Your task to perform on an android device: Open Android settings Image 0: 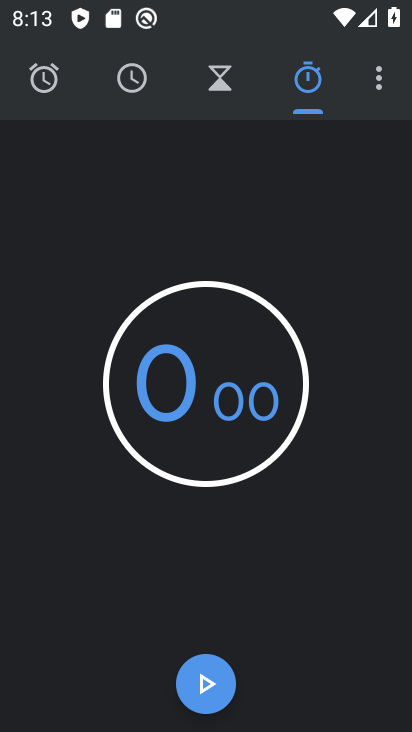
Step 0: press home button
Your task to perform on an android device: Open Android settings Image 1: 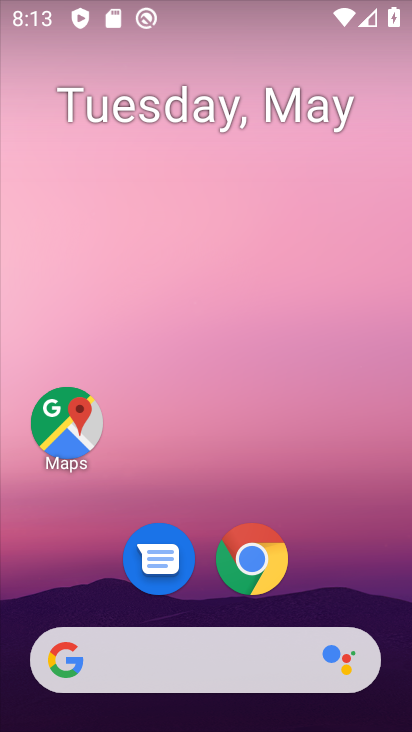
Step 1: drag from (205, 671) to (132, 125)
Your task to perform on an android device: Open Android settings Image 2: 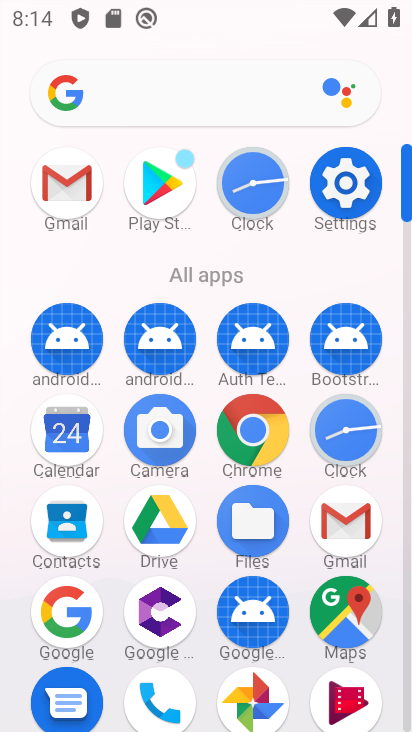
Step 2: click (350, 196)
Your task to perform on an android device: Open Android settings Image 3: 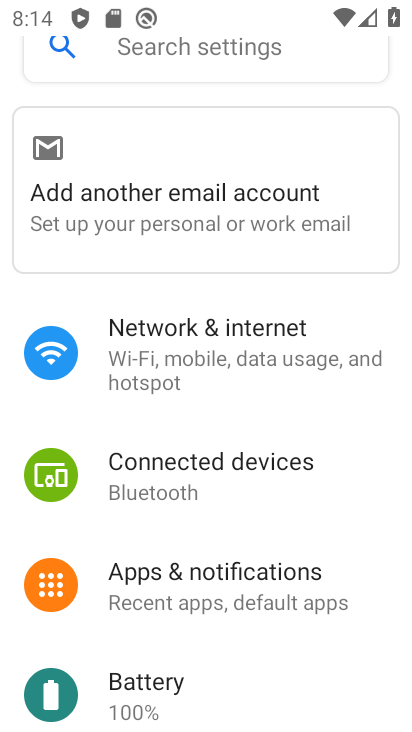
Step 3: task complete